Your task to perform on an android device: Go to network settings Image 0: 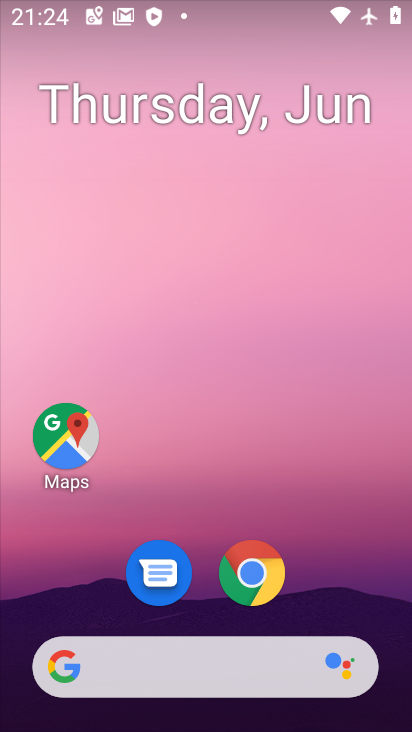
Step 0: drag from (259, 602) to (254, 249)
Your task to perform on an android device: Go to network settings Image 1: 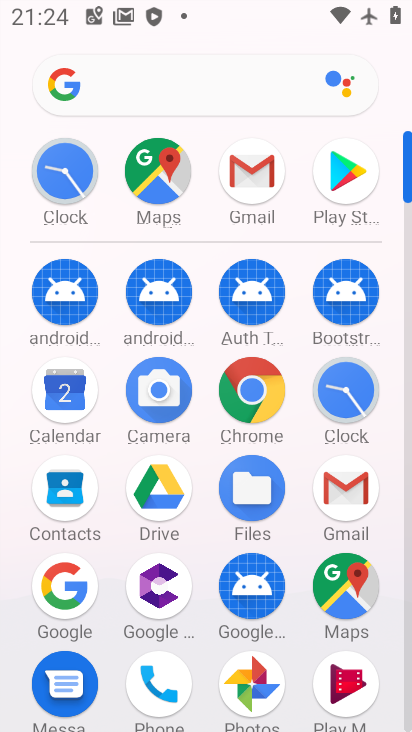
Step 1: drag from (171, 568) to (226, 221)
Your task to perform on an android device: Go to network settings Image 2: 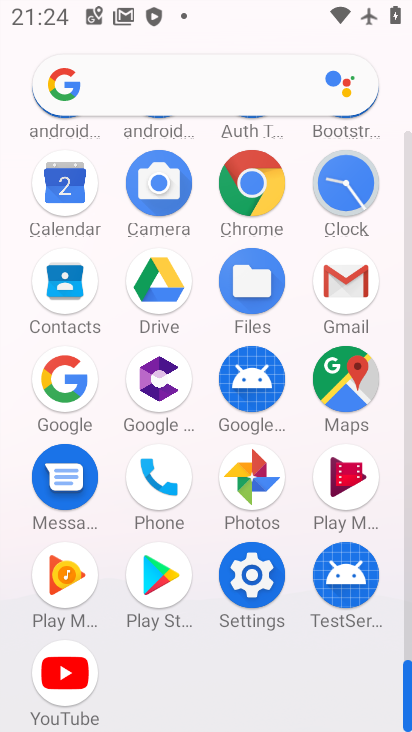
Step 2: click (246, 577)
Your task to perform on an android device: Go to network settings Image 3: 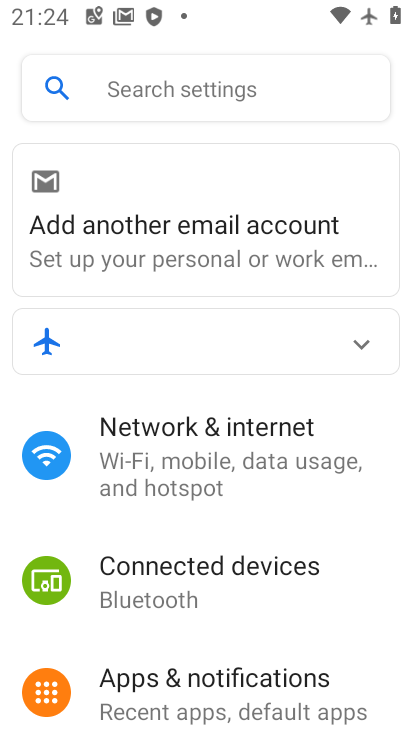
Step 3: click (170, 456)
Your task to perform on an android device: Go to network settings Image 4: 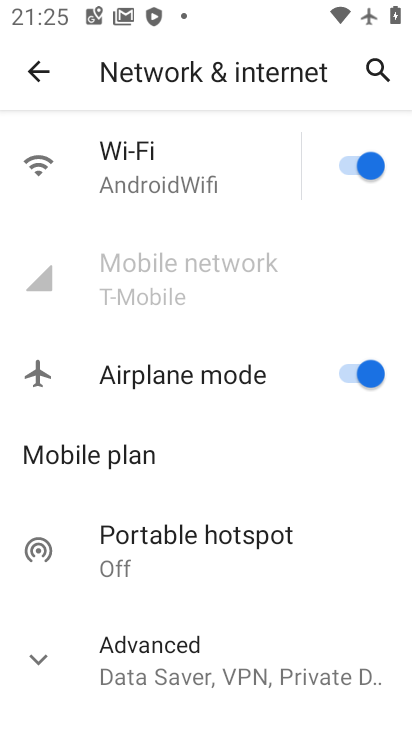
Step 4: task complete